Your task to perform on an android device: Go to ESPN.com Image 0: 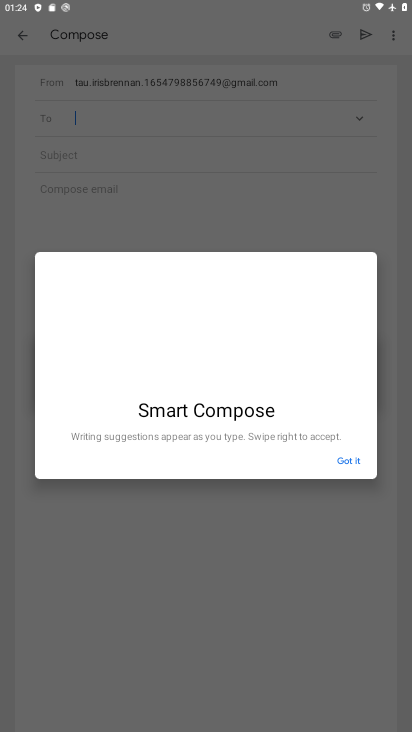
Step 0: press home button
Your task to perform on an android device: Go to ESPN.com Image 1: 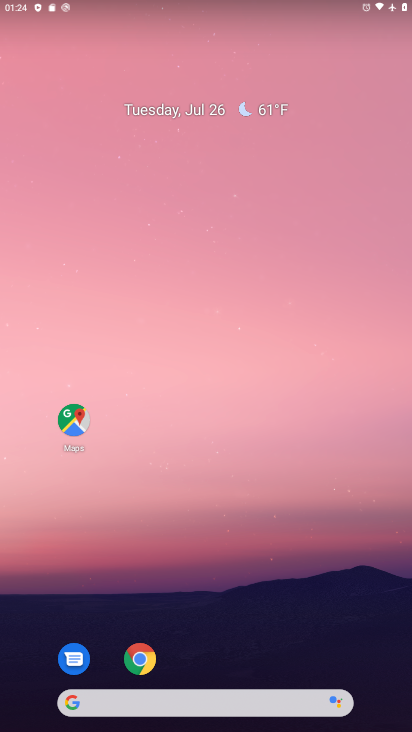
Step 1: drag from (301, 457) to (273, 104)
Your task to perform on an android device: Go to ESPN.com Image 2: 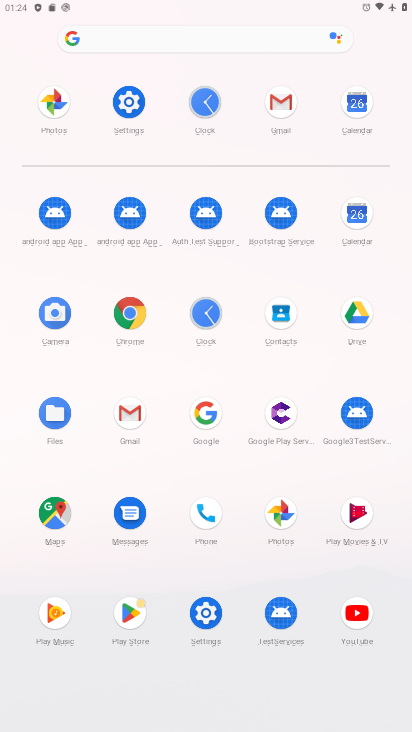
Step 2: click (126, 307)
Your task to perform on an android device: Go to ESPN.com Image 3: 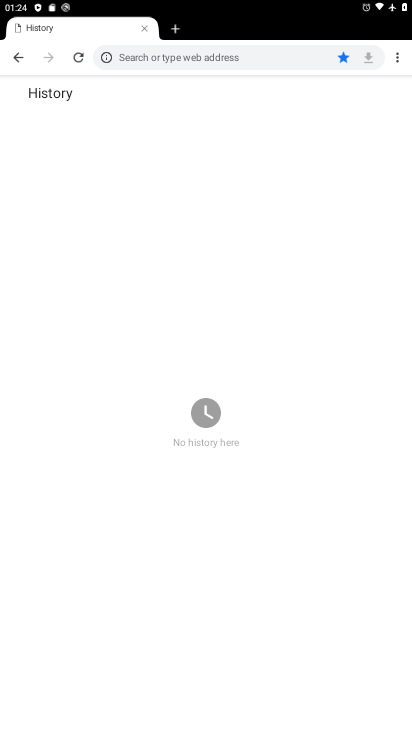
Step 3: click (159, 61)
Your task to perform on an android device: Go to ESPN.com Image 4: 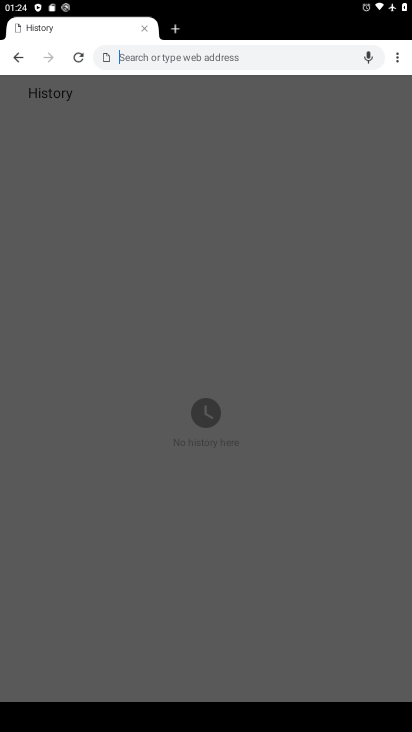
Step 4: type "espn.com"
Your task to perform on an android device: Go to ESPN.com Image 5: 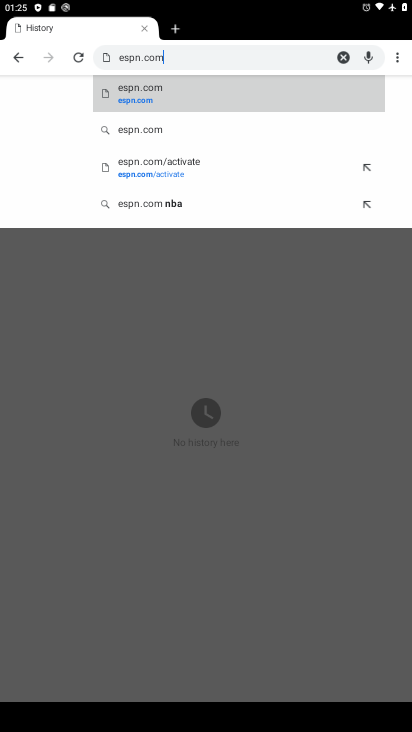
Step 5: click (156, 98)
Your task to perform on an android device: Go to ESPN.com Image 6: 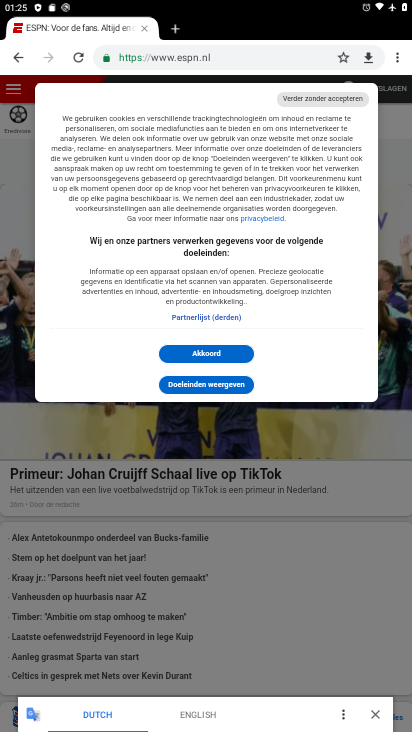
Step 6: task complete